Your task to perform on an android device: Go to Reddit.com Image 0: 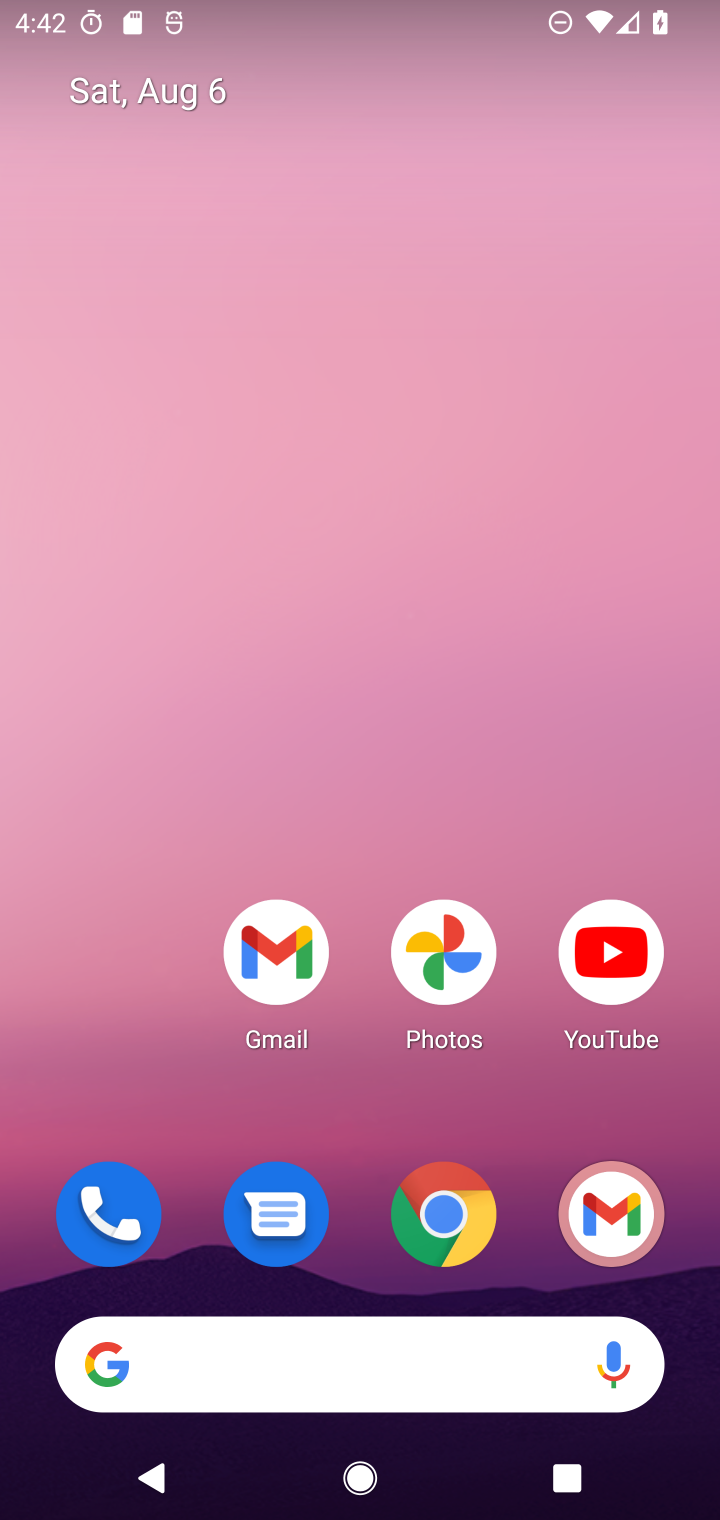
Step 0: click (463, 1228)
Your task to perform on an android device: Go to Reddit.com Image 1: 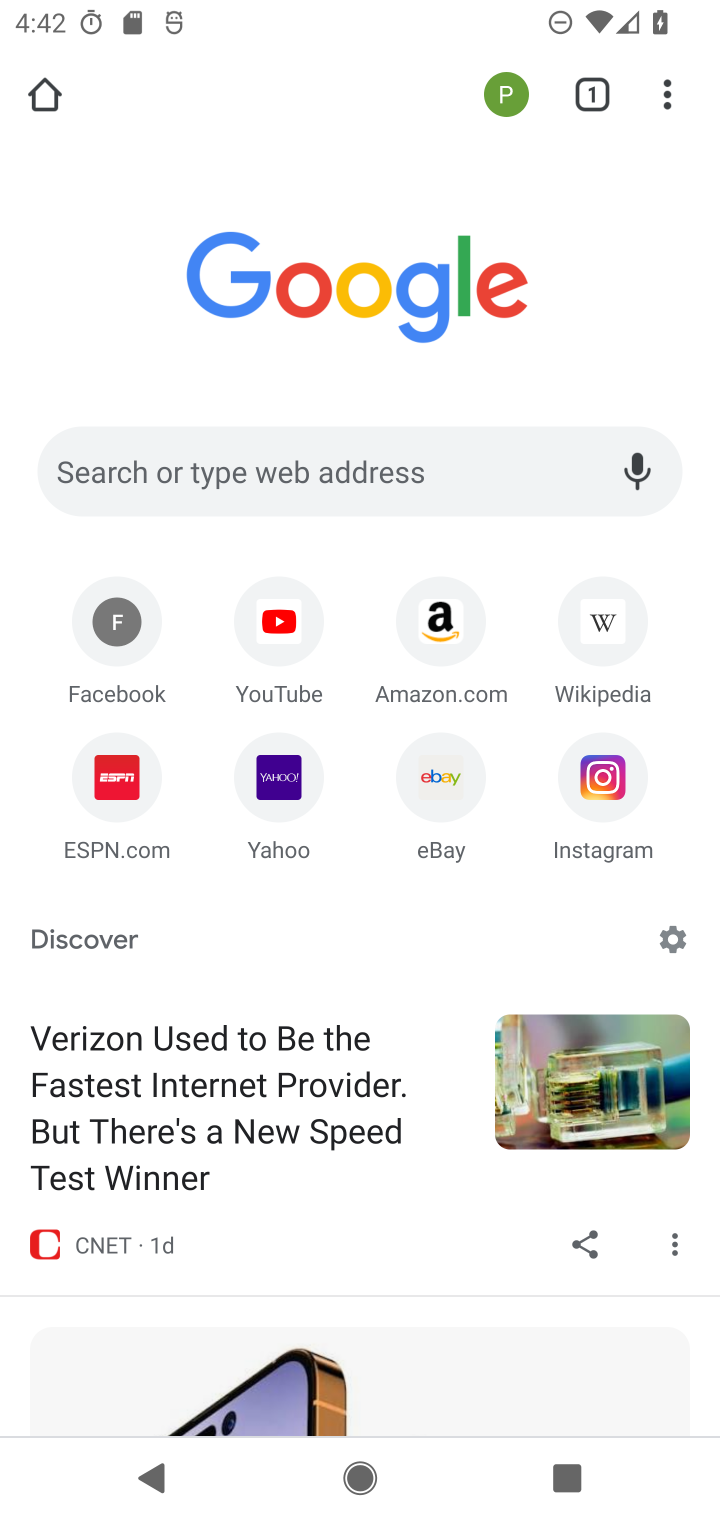
Step 1: click (341, 461)
Your task to perform on an android device: Go to Reddit.com Image 2: 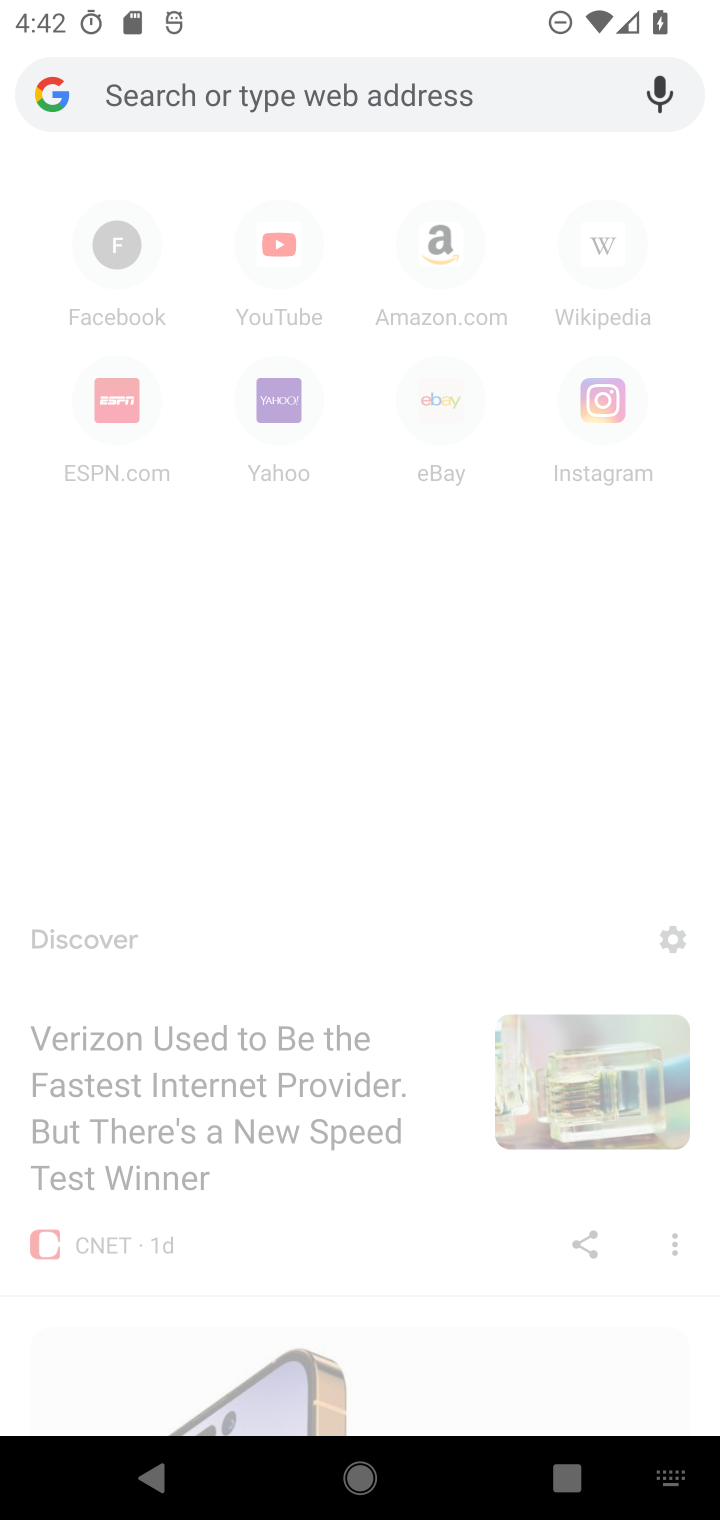
Step 2: type "www.reddit.com"
Your task to perform on an android device: Go to Reddit.com Image 3: 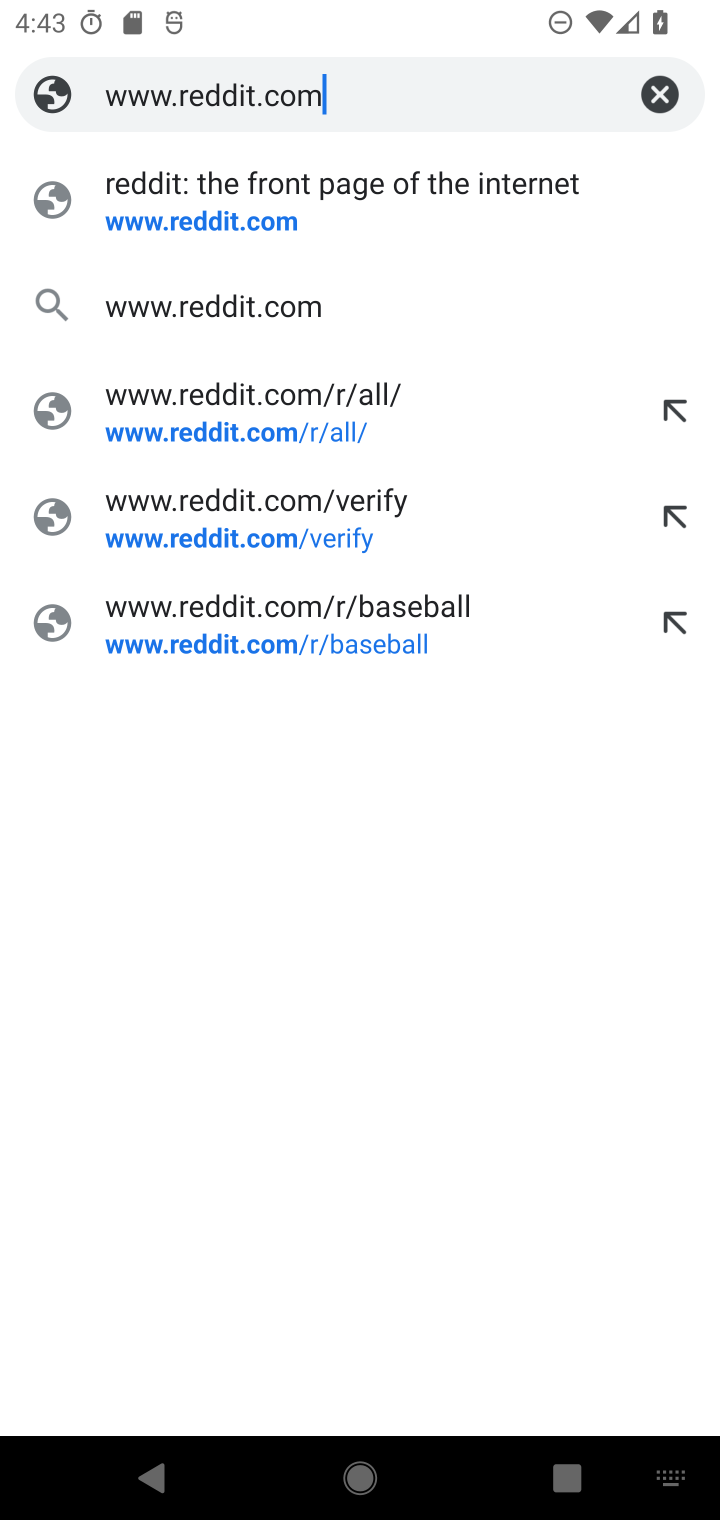
Step 3: click (195, 207)
Your task to perform on an android device: Go to Reddit.com Image 4: 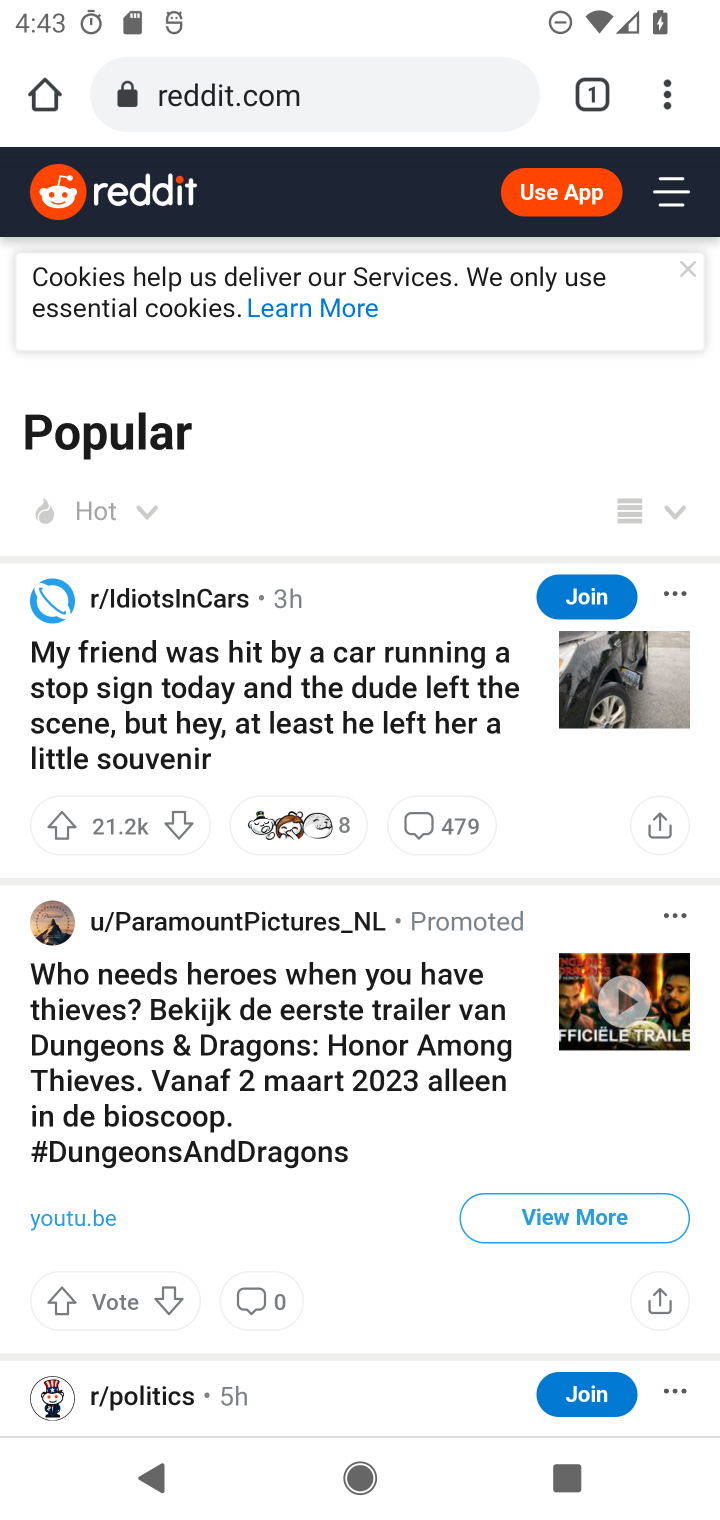
Step 4: task complete